Your task to perform on an android device: turn off wifi Image 0: 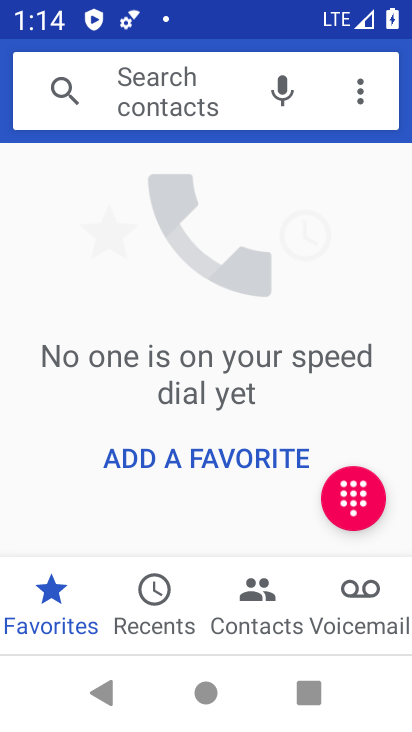
Step 0: press home button
Your task to perform on an android device: turn off wifi Image 1: 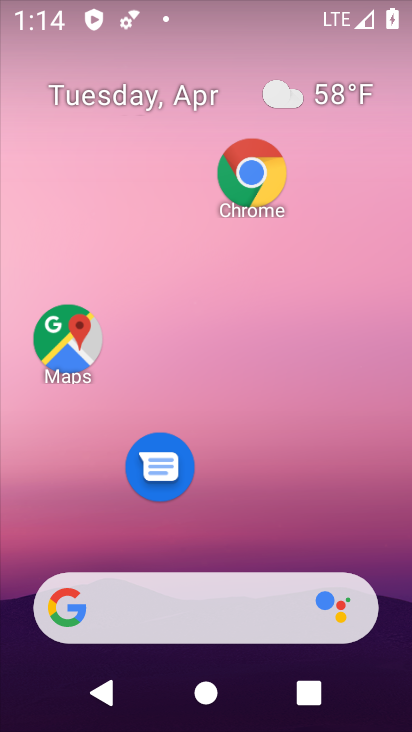
Step 1: drag from (271, 642) to (259, 32)
Your task to perform on an android device: turn off wifi Image 2: 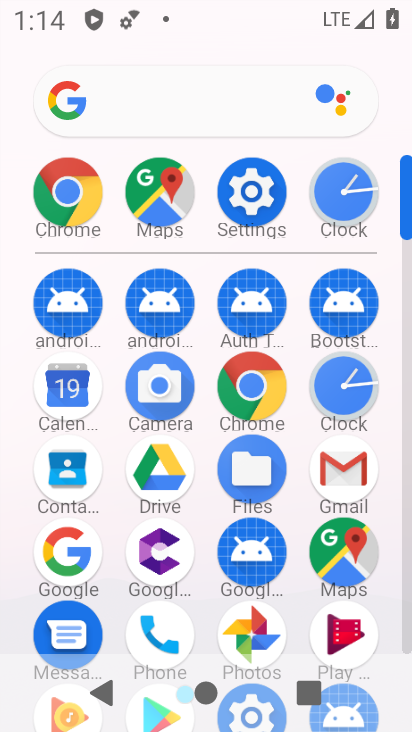
Step 2: click (250, 193)
Your task to perform on an android device: turn off wifi Image 3: 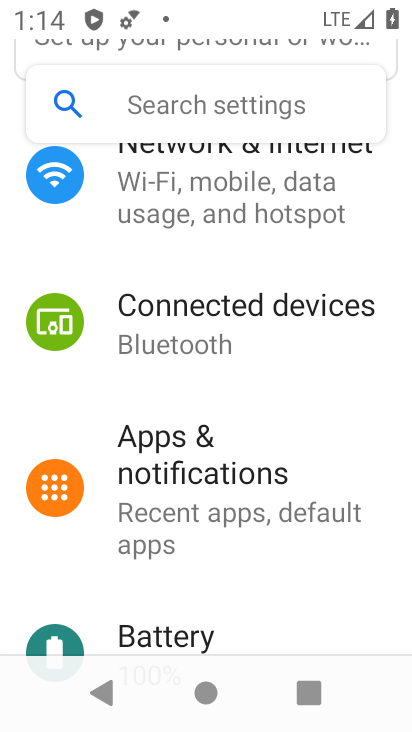
Step 3: drag from (252, 189) to (279, 669)
Your task to perform on an android device: turn off wifi Image 4: 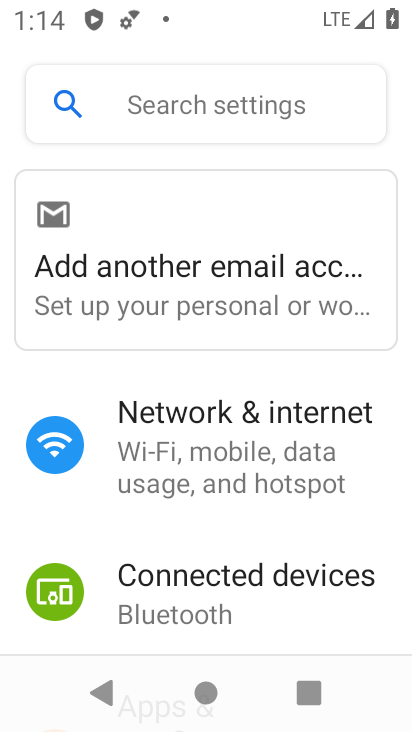
Step 4: click (291, 465)
Your task to perform on an android device: turn off wifi Image 5: 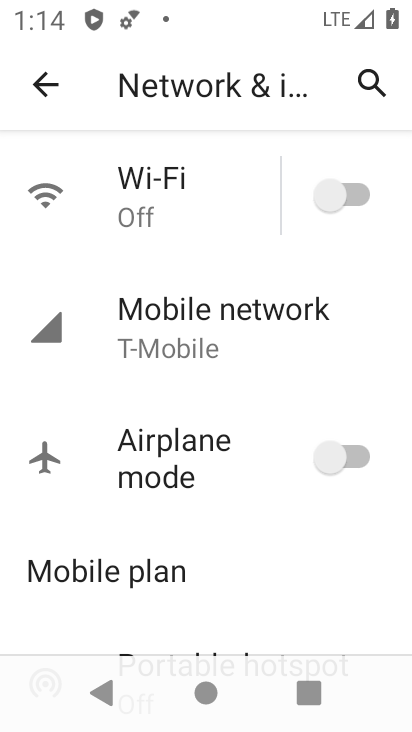
Step 5: task complete